Your task to perform on an android device: Check the news Image 0: 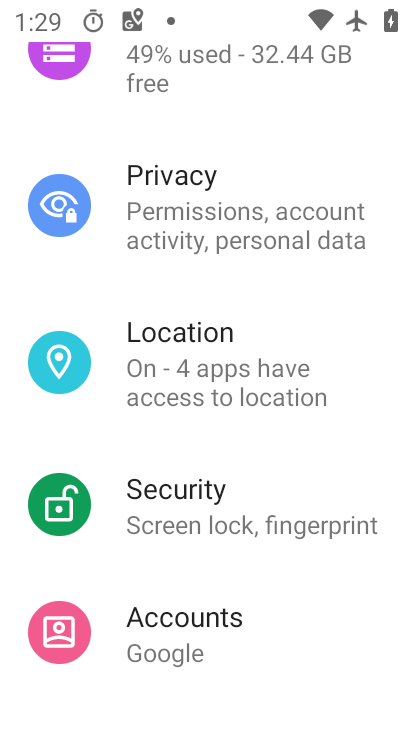
Step 0: press home button
Your task to perform on an android device: Check the news Image 1: 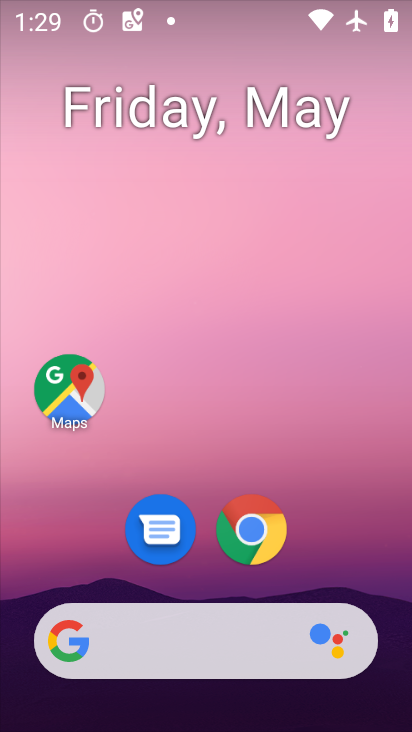
Step 1: drag from (204, 624) to (165, 130)
Your task to perform on an android device: Check the news Image 2: 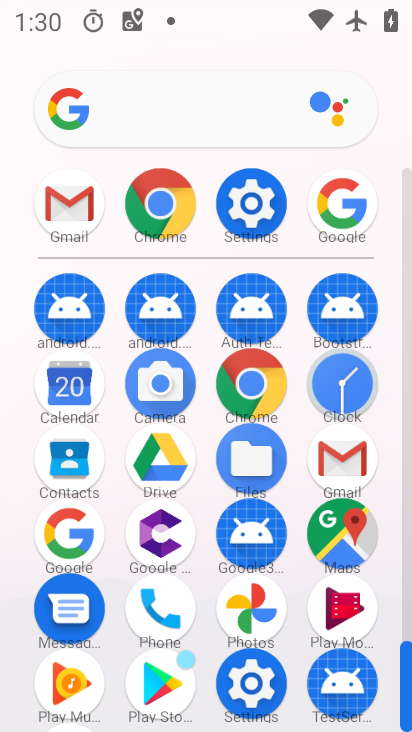
Step 2: click (63, 555)
Your task to perform on an android device: Check the news Image 3: 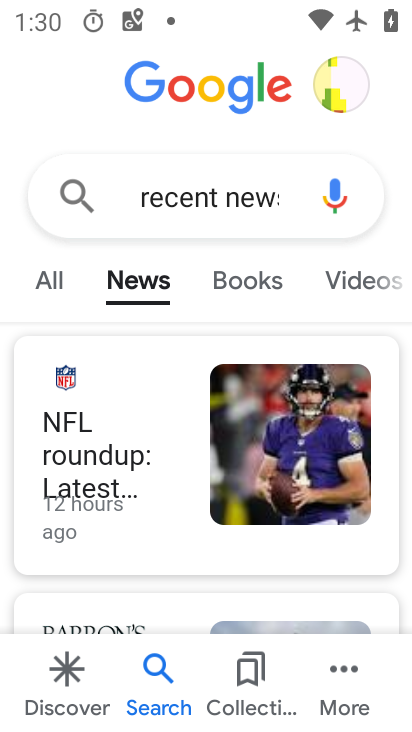
Step 3: task complete